Your task to perform on an android device: change notifications settings Image 0: 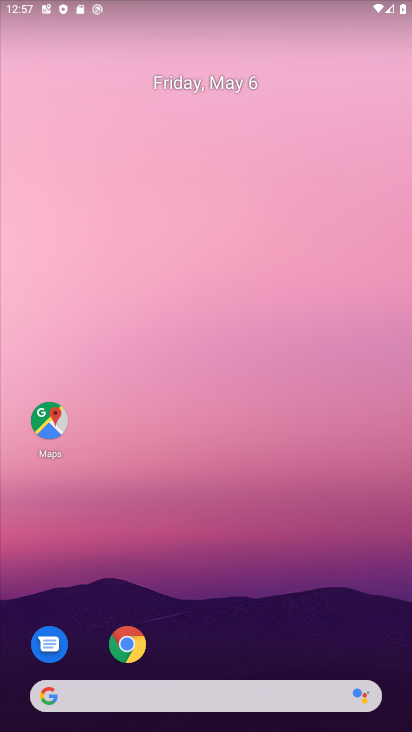
Step 0: drag from (225, 727) to (275, 107)
Your task to perform on an android device: change notifications settings Image 1: 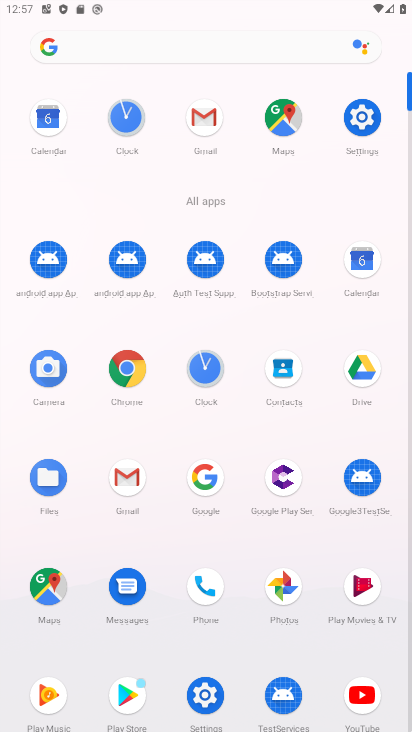
Step 1: click (366, 130)
Your task to perform on an android device: change notifications settings Image 2: 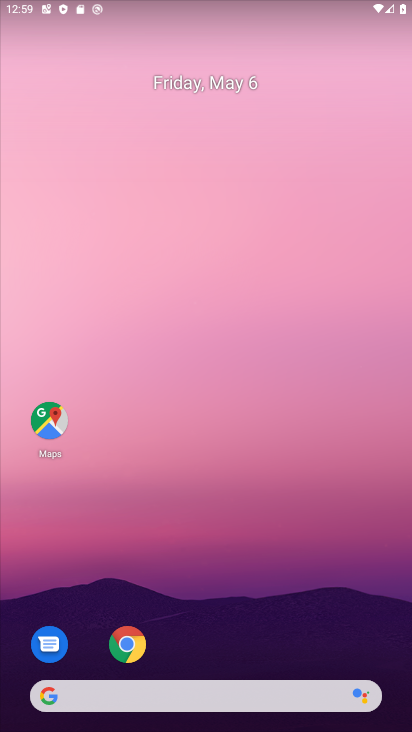
Step 2: drag from (229, 729) to (278, 24)
Your task to perform on an android device: change notifications settings Image 3: 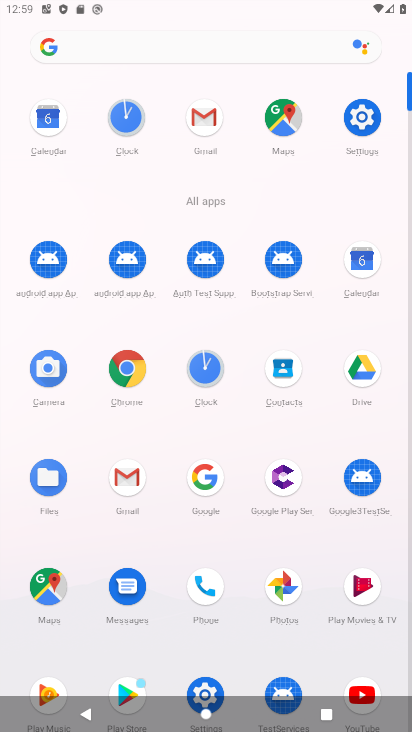
Step 3: click (371, 123)
Your task to perform on an android device: change notifications settings Image 4: 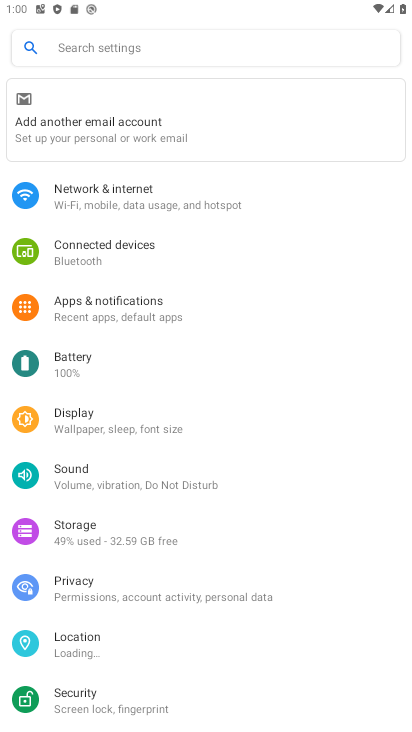
Step 4: click (138, 310)
Your task to perform on an android device: change notifications settings Image 5: 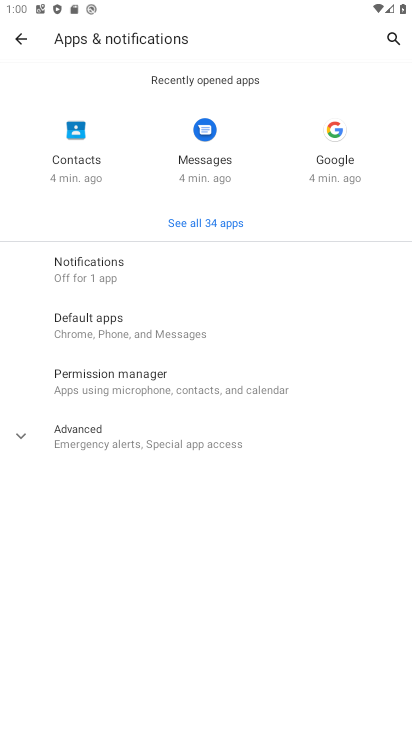
Step 5: click (138, 272)
Your task to perform on an android device: change notifications settings Image 6: 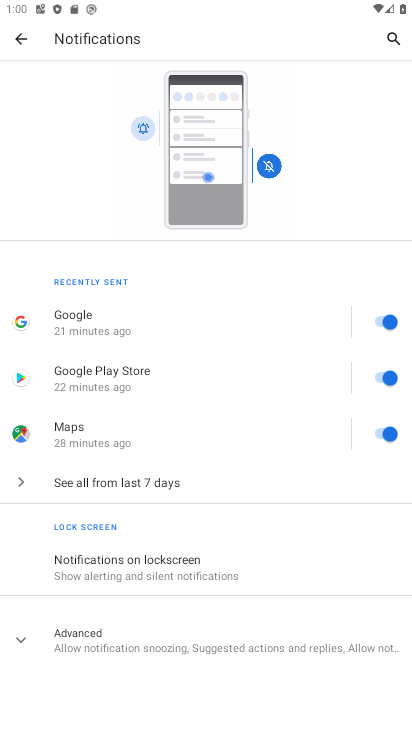
Step 6: click (391, 326)
Your task to perform on an android device: change notifications settings Image 7: 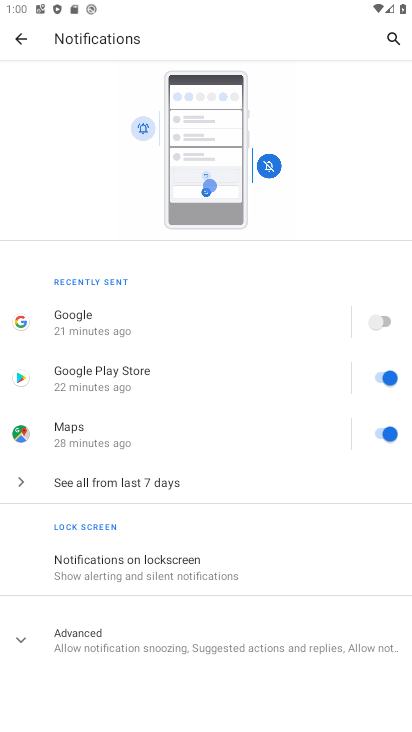
Step 7: task complete